Your task to perform on an android device: Search for acer nitro on walmart.com, select the first entry, and add it to the cart. Image 0: 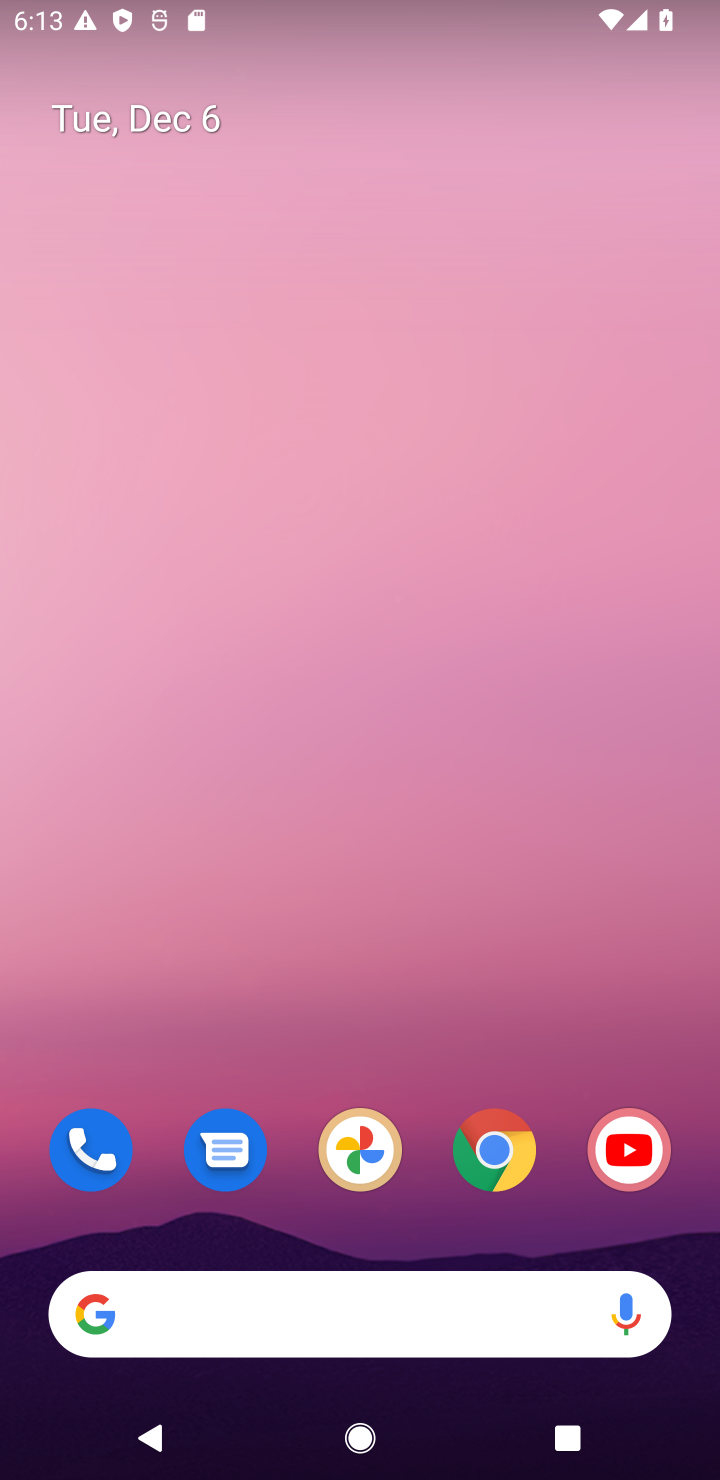
Step 0: click (509, 1151)
Your task to perform on an android device: Search for acer nitro on walmart.com, select the first entry, and add it to the cart. Image 1: 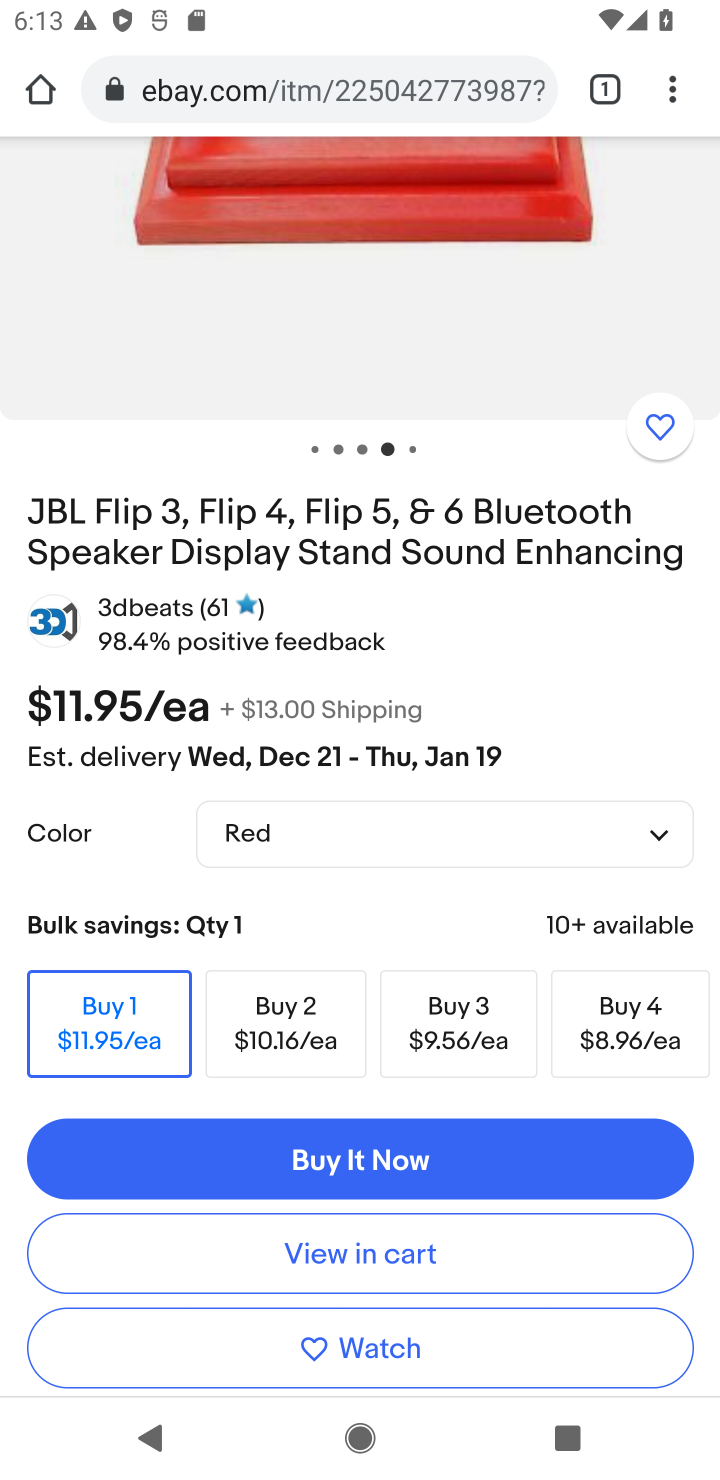
Step 1: click (301, 81)
Your task to perform on an android device: Search for acer nitro on walmart.com, select the first entry, and add it to the cart. Image 2: 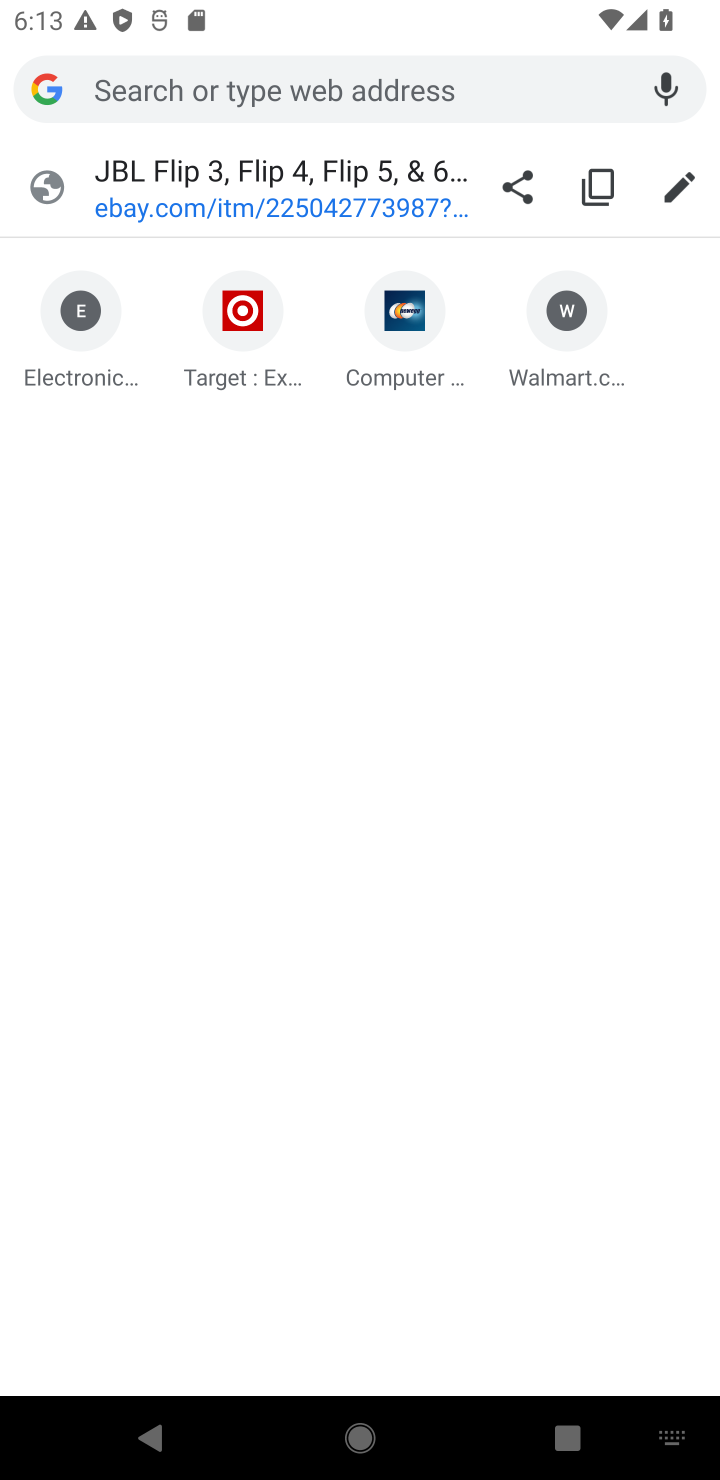
Step 2: click (565, 319)
Your task to perform on an android device: Search for acer nitro on walmart.com, select the first entry, and add it to the cart. Image 3: 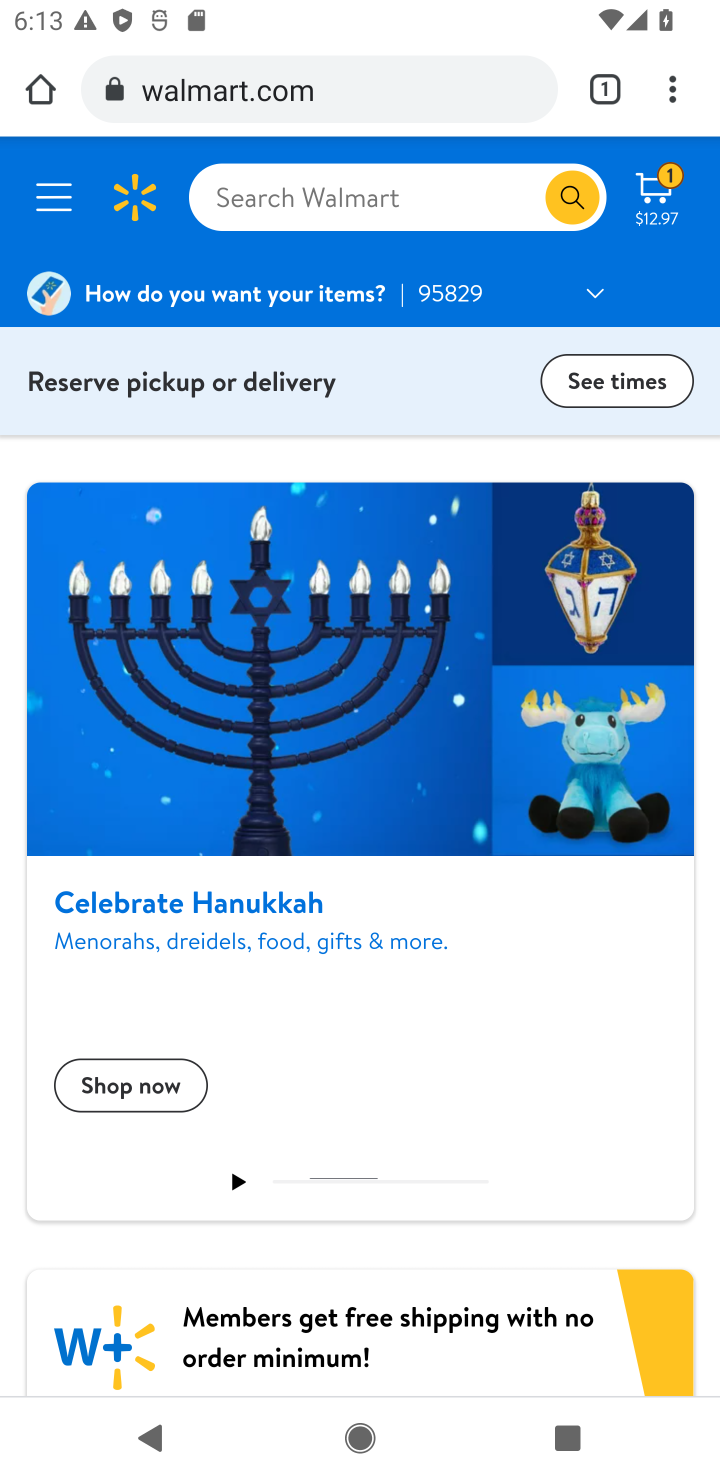
Step 3: click (237, 214)
Your task to perform on an android device: Search for acer nitro on walmart.com, select the first entry, and add it to the cart. Image 4: 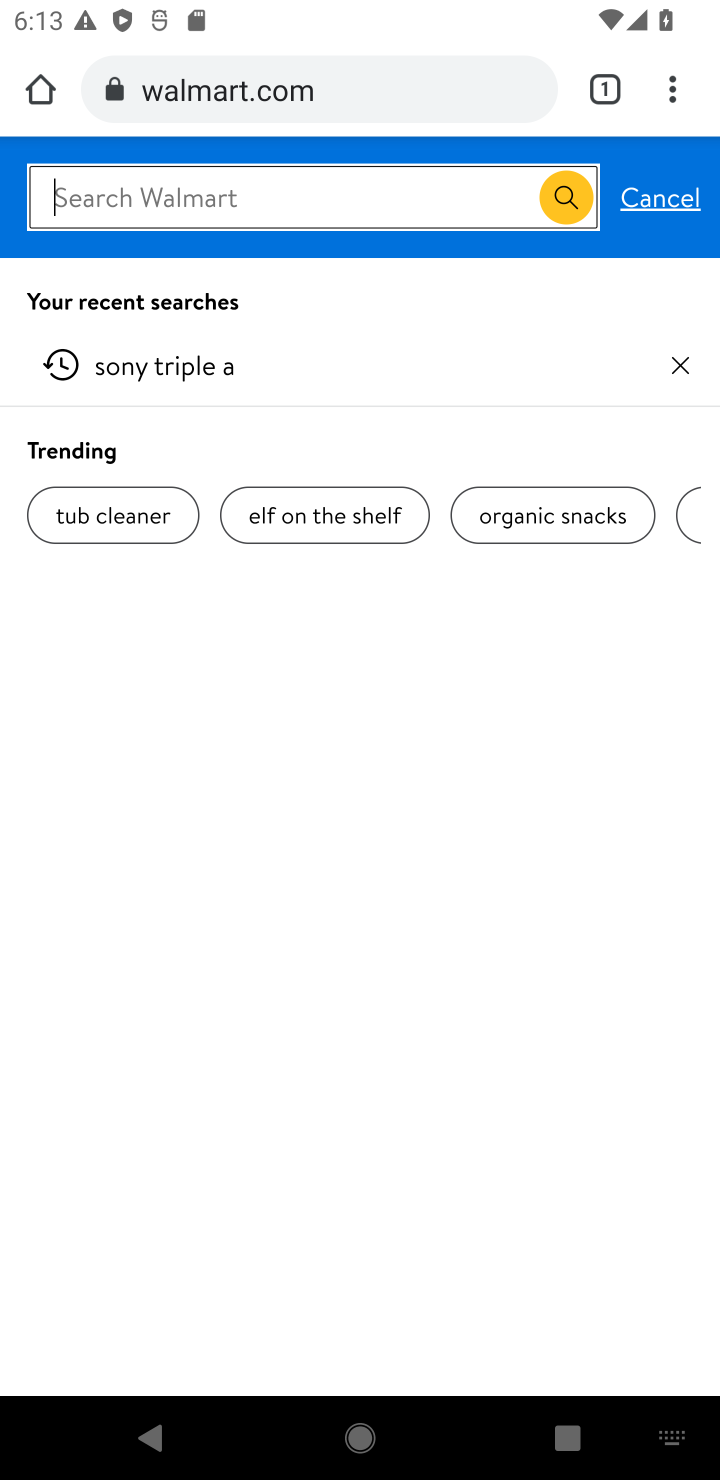
Step 4: type "acer nitro"
Your task to perform on an android device: Search for acer nitro on walmart.com, select the first entry, and add it to the cart. Image 5: 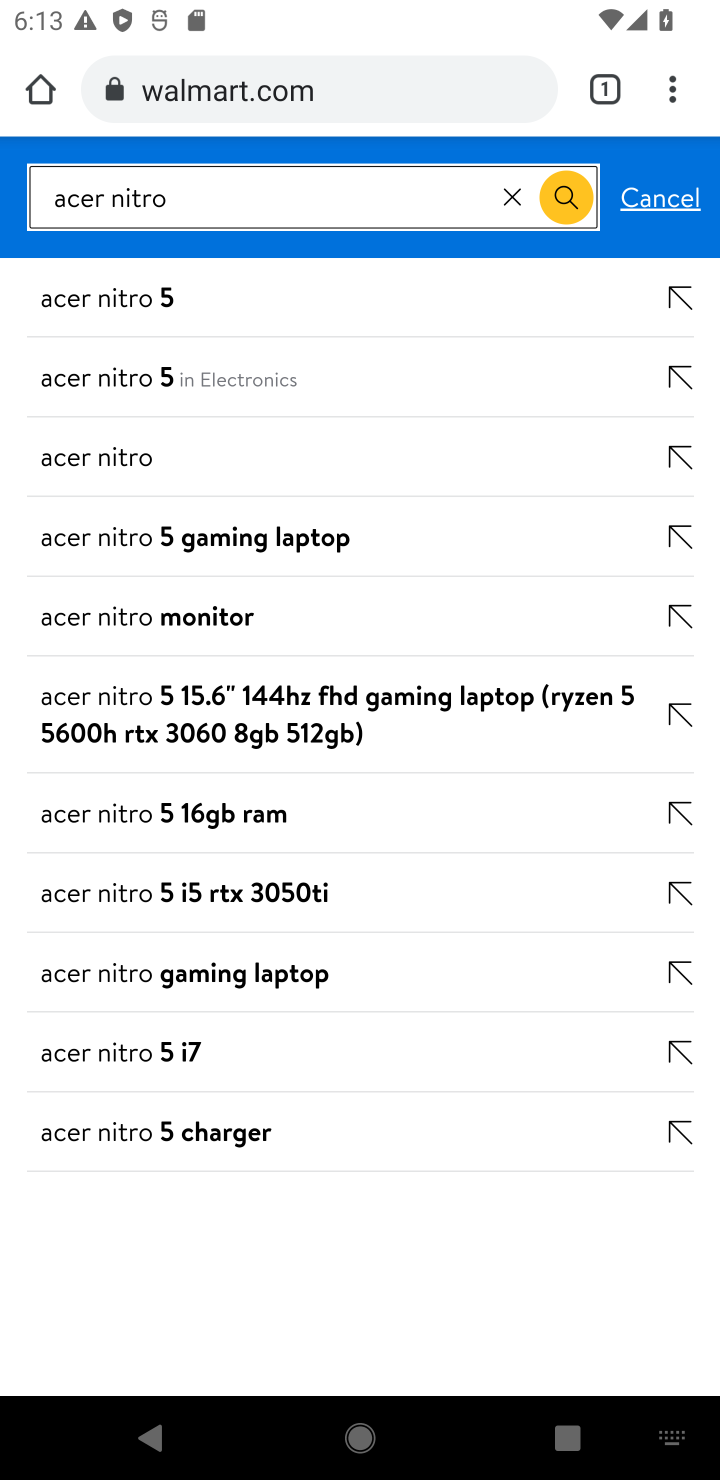
Step 5: click (121, 460)
Your task to perform on an android device: Search for acer nitro on walmart.com, select the first entry, and add it to the cart. Image 6: 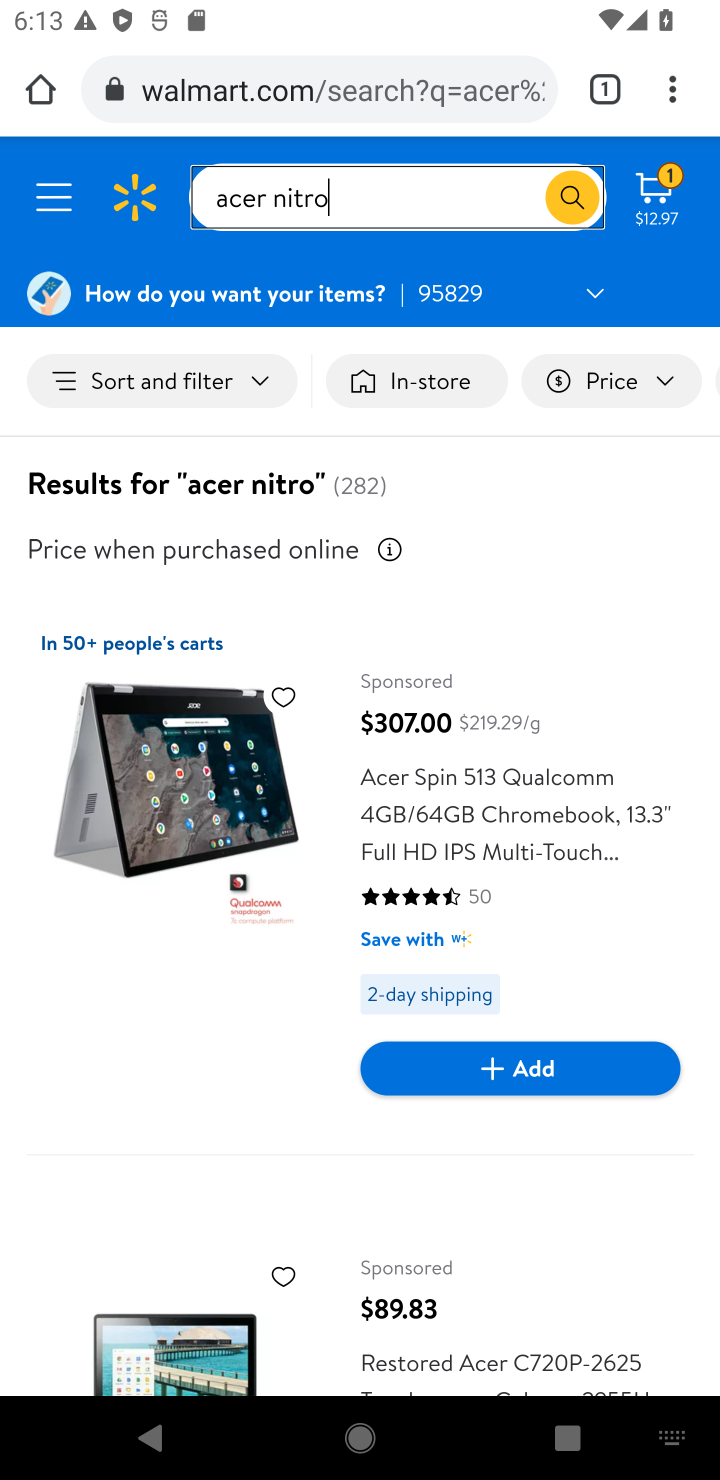
Step 6: task complete